Your task to perform on an android device: add a contact in the contacts app Image 0: 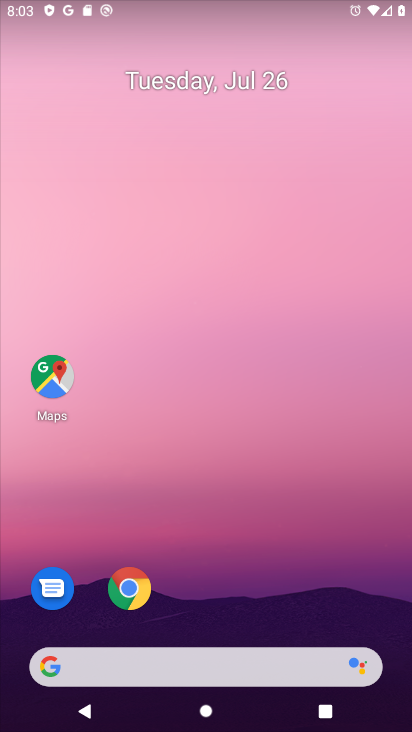
Step 0: drag from (214, 662) to (205, 155)
Your task to perform on an android device: add a contact in the contacts app Image 1: 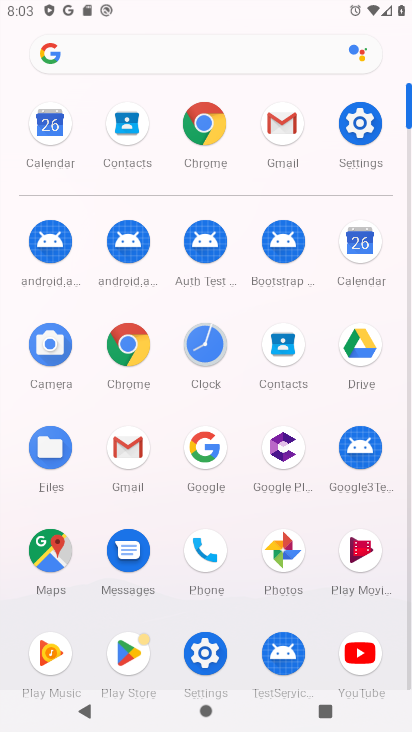
Step 1: click (278, 356)
Your task to perform on an android device: add a contact in the contacts app Image 2: 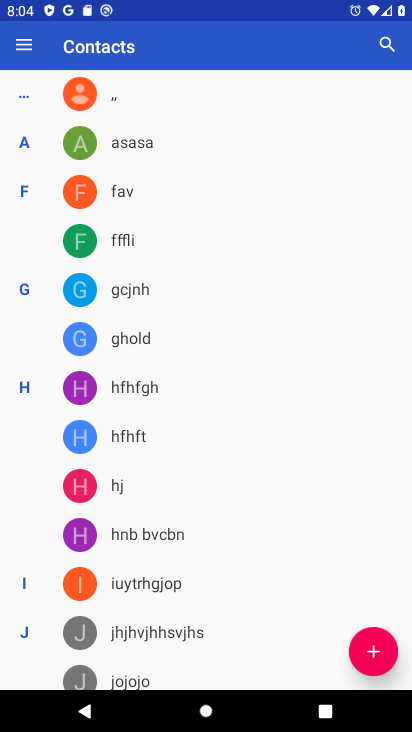
Step 2: click (375, 650)
Your task to perform on an android device: add a contact in the contacts app Image 3: 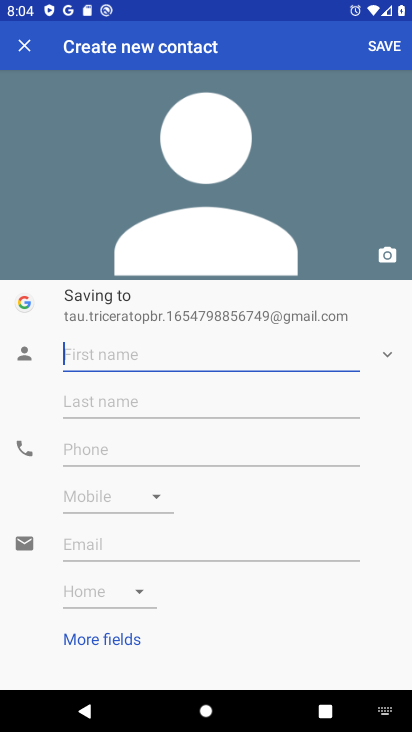
Step 3: type "vnvnhmnvbv"
Your task to perform on an android device: add a contact in the contacts app Image 4: 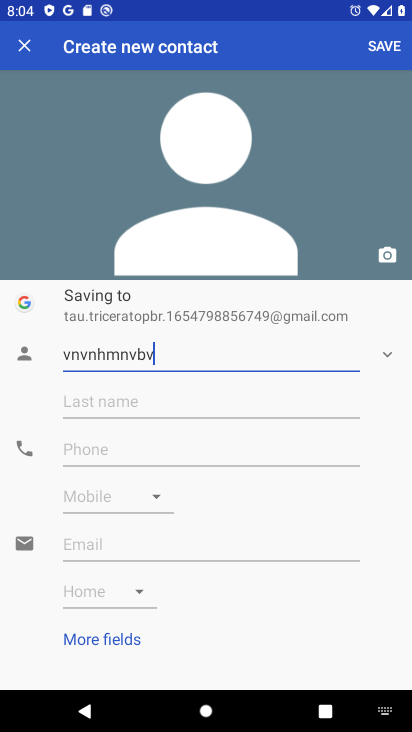
Step 4: click (259, 454)
Your task to perform on an android device: add a contact in the contacts app Image 5: 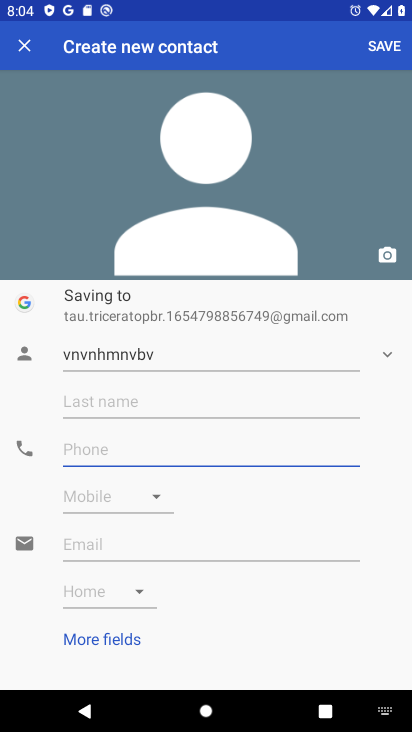
Step 5: type "876543567"
Your task to perform on an android device: add a contact in the contacts app Image 6: 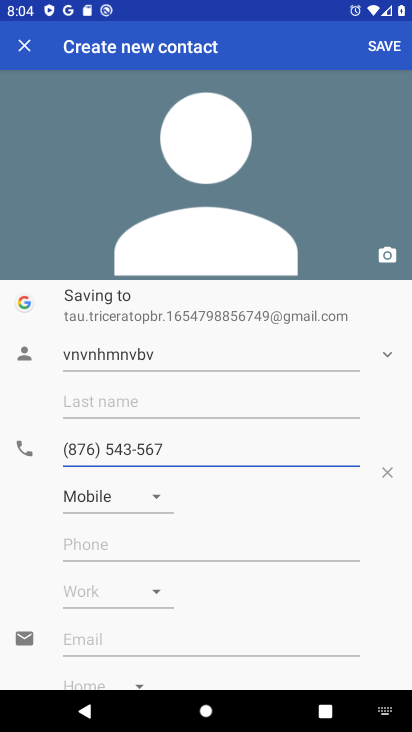
Step 6: type "7"
Your task to perform on an android device: add a contact in the contacts app Image 7: 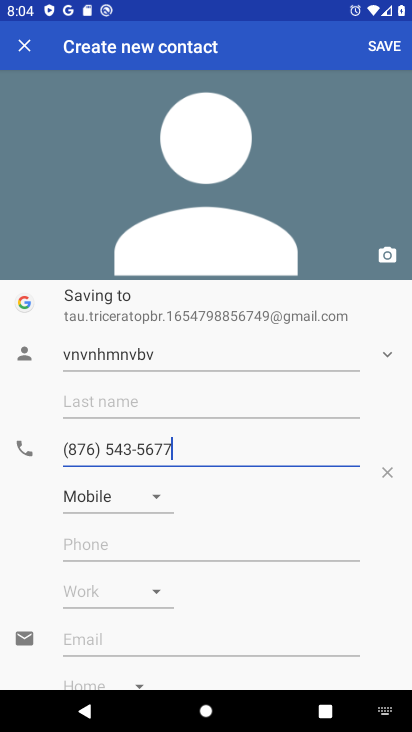
Step 7: click (399, 40)
Your task to perform on an android device: add a contact in the contacts app Image 8: 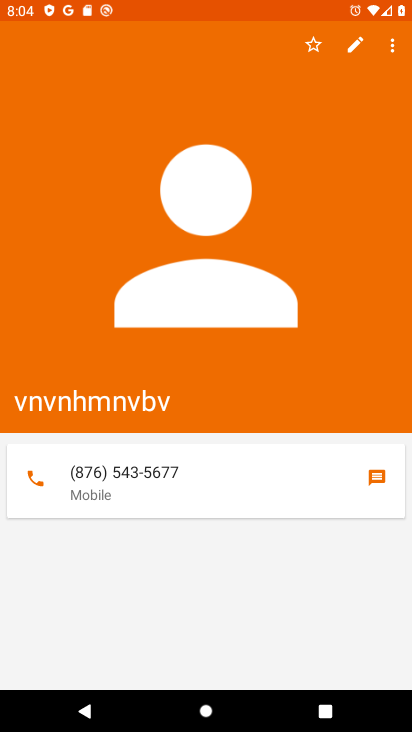
Step 8: task complete